Your task to perform on an android device: open the mobile data screen to see how much data has been used Image 0: 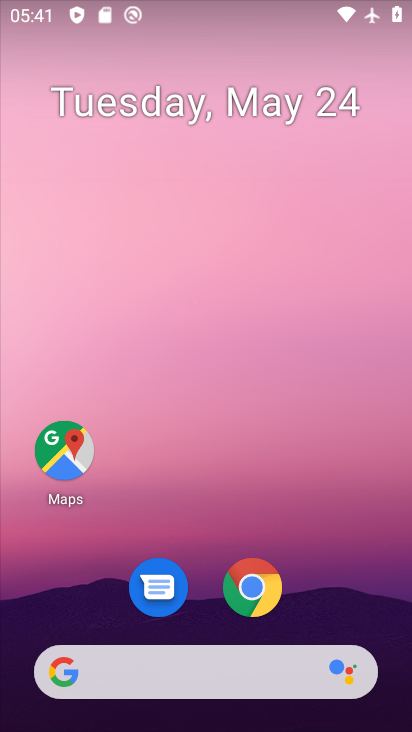
Step 0: press home button
Your task to perform on an android device: open the mobile data screen to see how much data has been used Image 1: 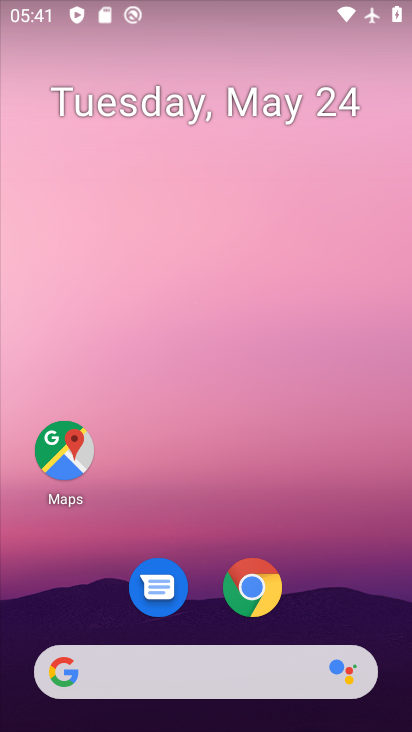
Step 1: drag from (346, 465) to (289, 14)
Your task to perform on an android device: open the mobile data screen to see how much data has been used Image 2: 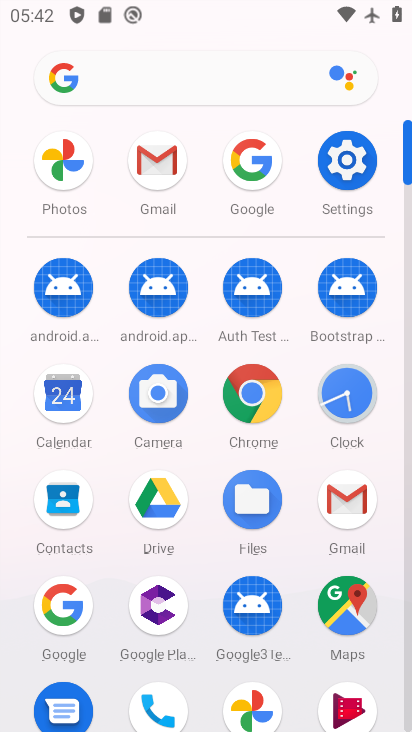
Step 2: click (345, 180)
Your task to perform on an android device: open the mobile data screen to see how much data has been used Image 3: 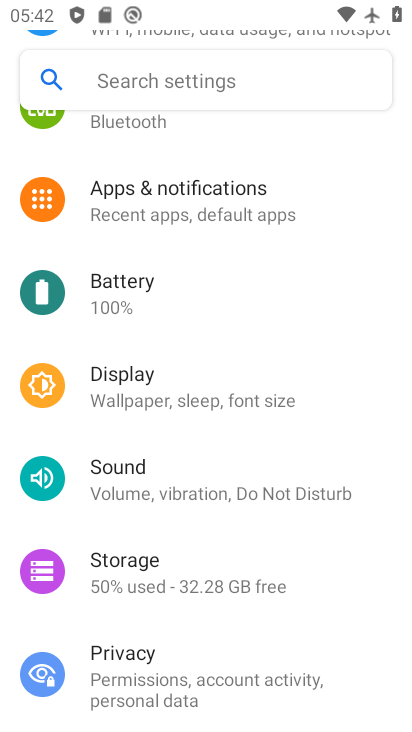
Step 3: drag from (229, 175) to (242, 729)
Your task to perform on an android device: open the mobile data screen to see how much data has been used Image 4: 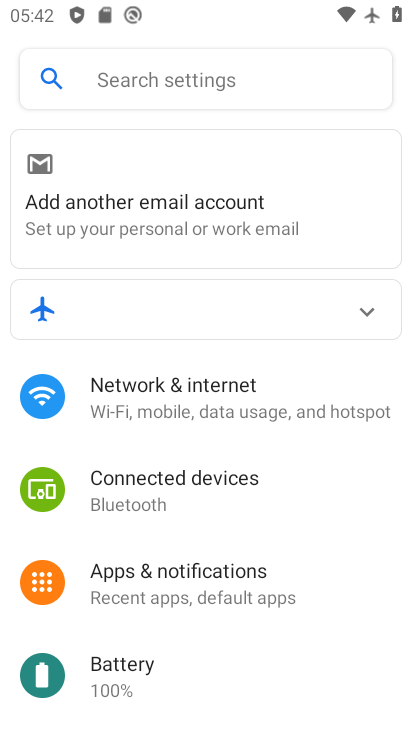
Step 4: click (229, 405)
Your task to perform on an android device: open the mobile data screen to see how much data has been used Image 5: 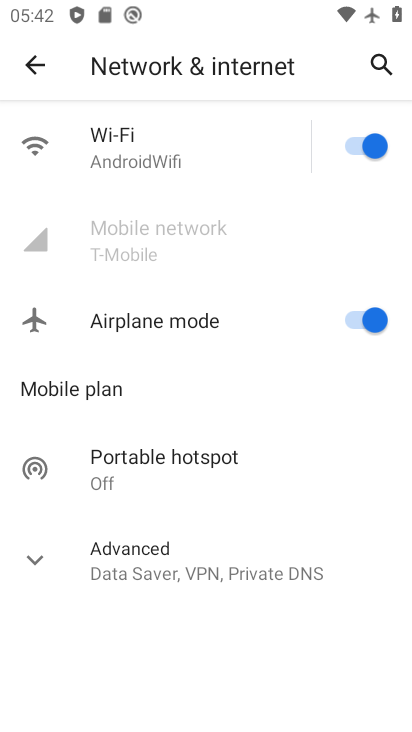
Step 5: task complete